Your task to perform on an android device: uninstall "Etsy: Buy & Sell Unique Items" Image 0: 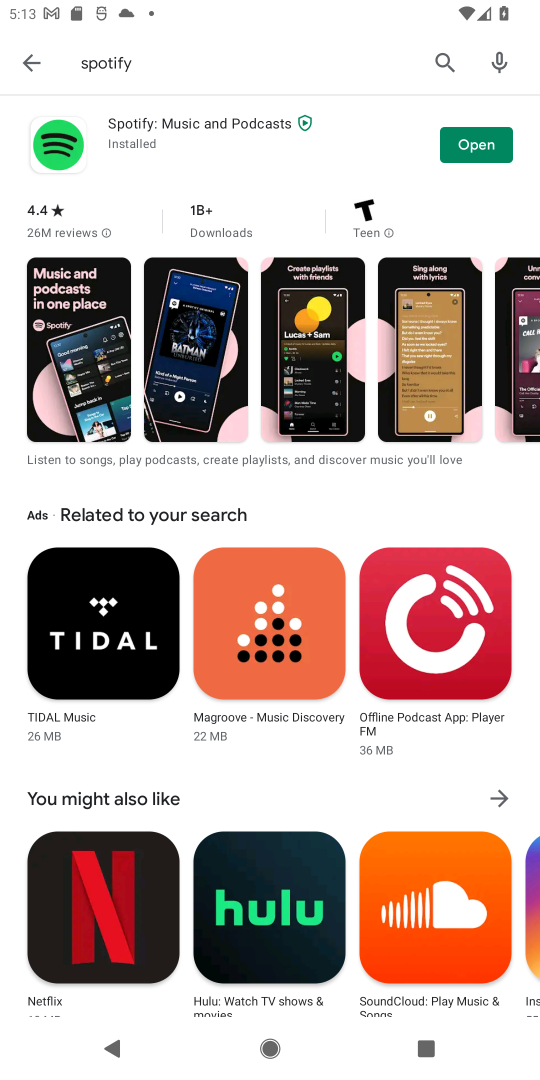
Step 0: click (26, 52)
Your task to perform on an android device: uninstall "Etsy: Buy & Sell Unique Items" Image 1: 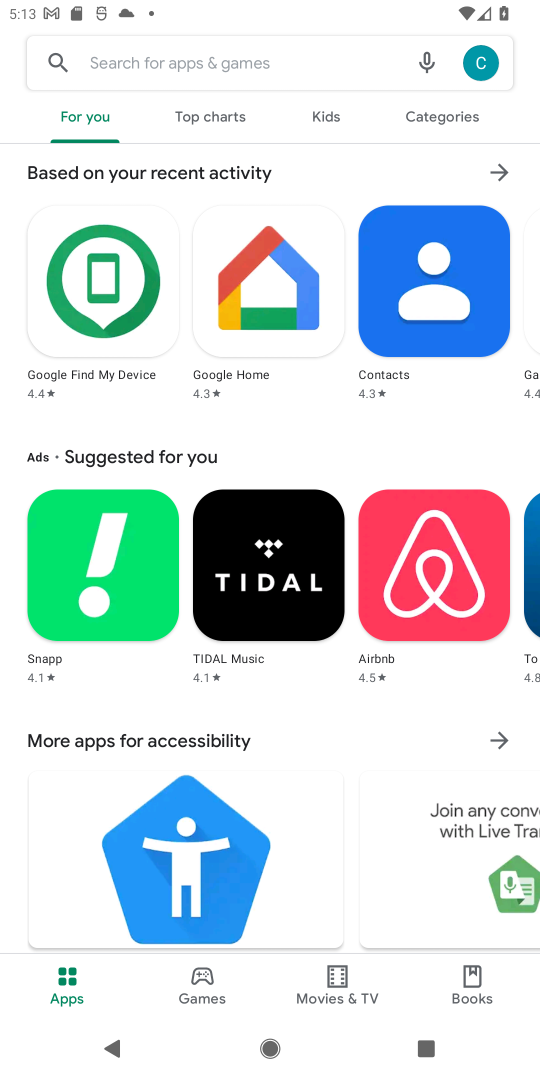
Step 1: click (244, 62)
Your task to perform on an android device: uninstall "Etsy: Buy & Sell Unique Items" Image 2: 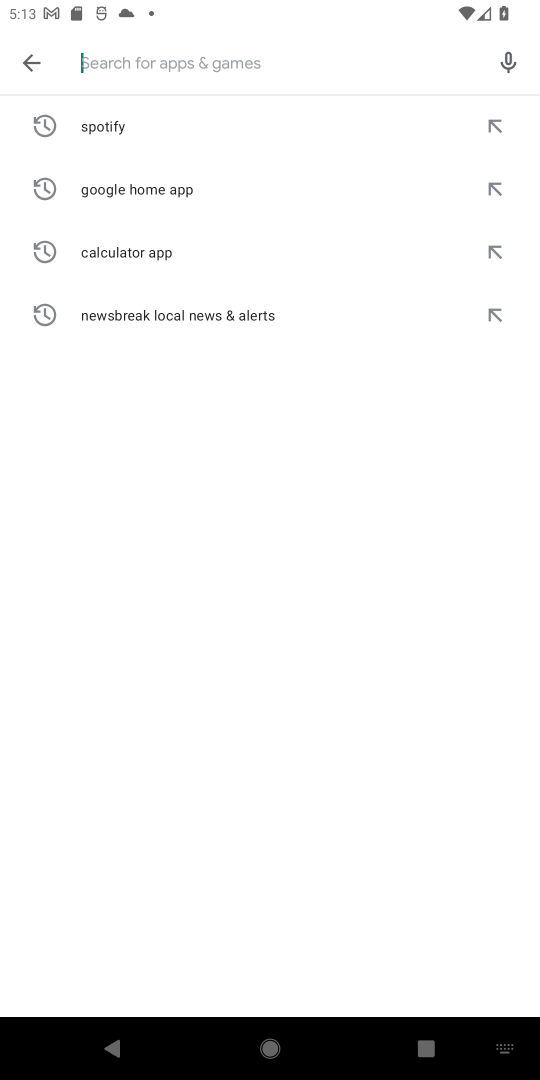
Step 2: type "Etsy: Buy & Sell Unique Items "
Your task to perform on an android device: uninstall "Etsy: Buy & Sell Unique Items" Image 3: 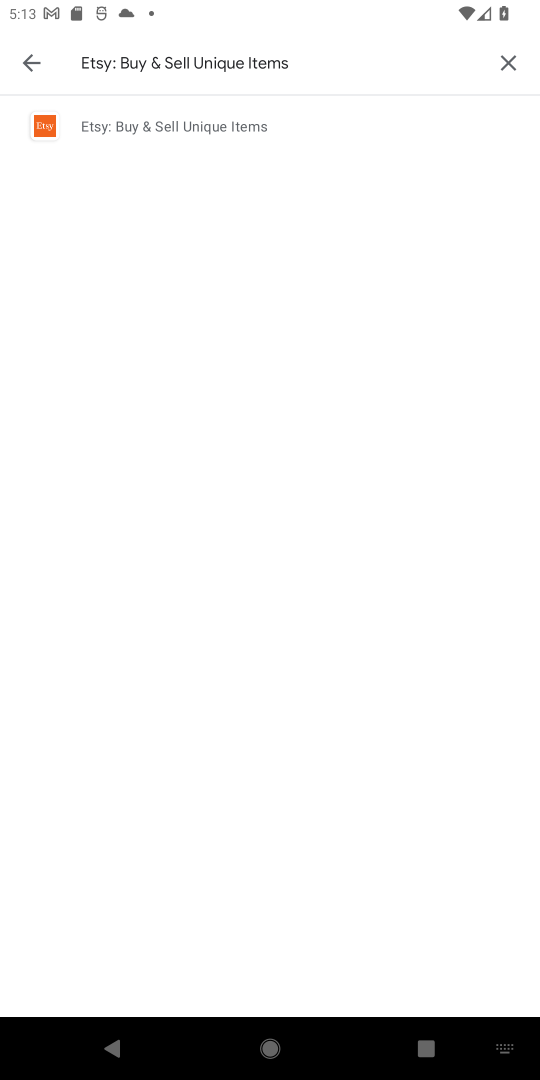
Step 3: click (184, 115)
Your task to perform on an android device: uninstall "Etsy: Buy & Sell Unique Items" Image 4: 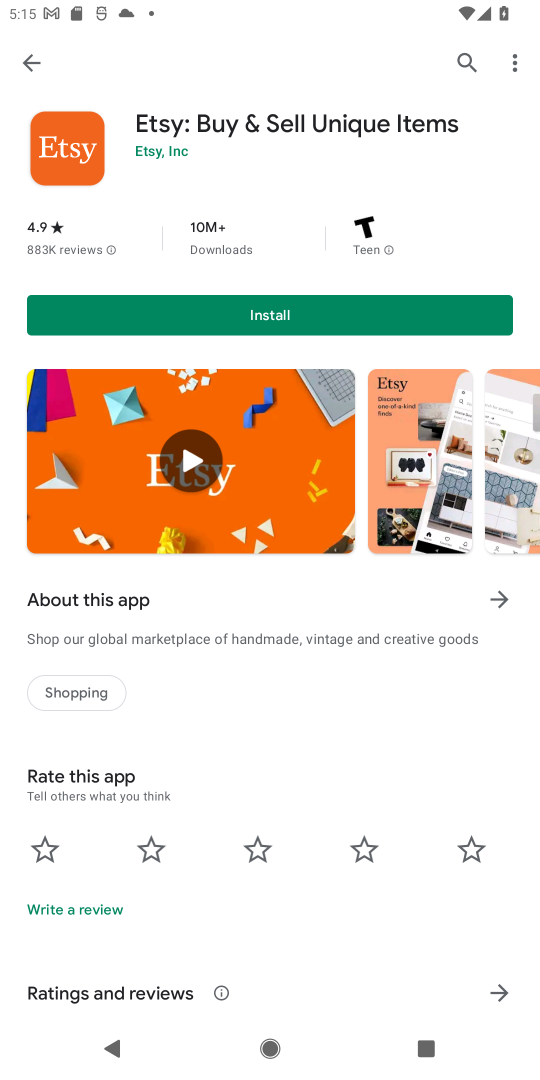
Step 4: task complete